Your task to perform on an android device: What's the weather today? Image 0: 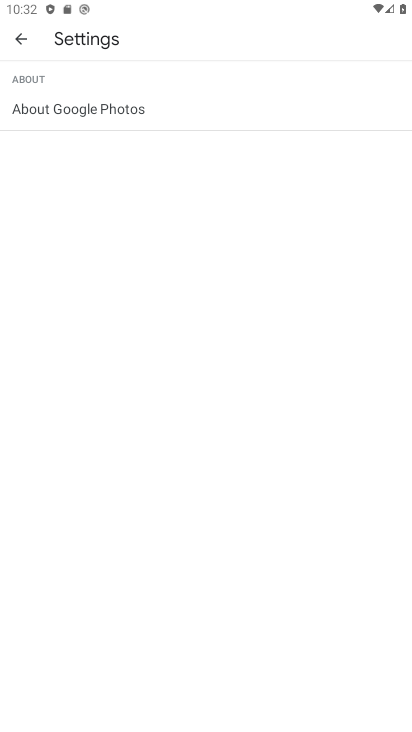
Step 0: press home button
Your task to perform on an android device: What's the weather today? Image 1: 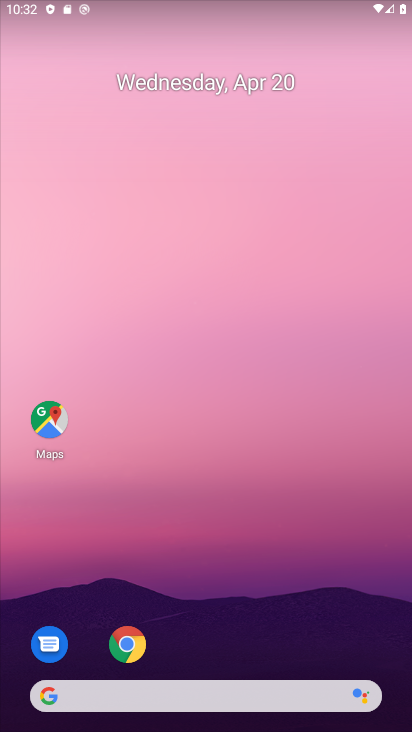
Step 1: drag from (360, 604) to (347, 144)
Your task to perform on an android device: What's the weather today? Image 2: 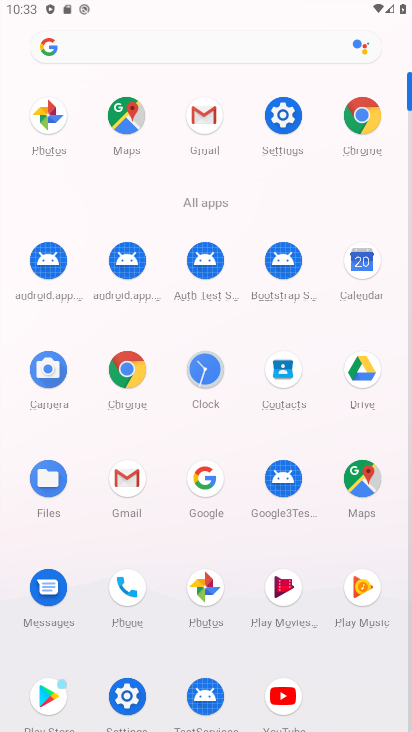
Step 2: click (133, 379)
Your task to perform on an android device: What's the weather today? Image 3: 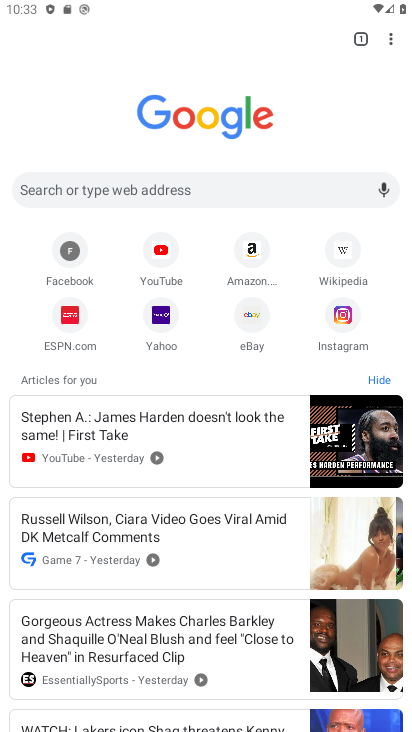
Step 3: click (201, 190)
Your task to perform on an android device: What's the weather today? Image 4: 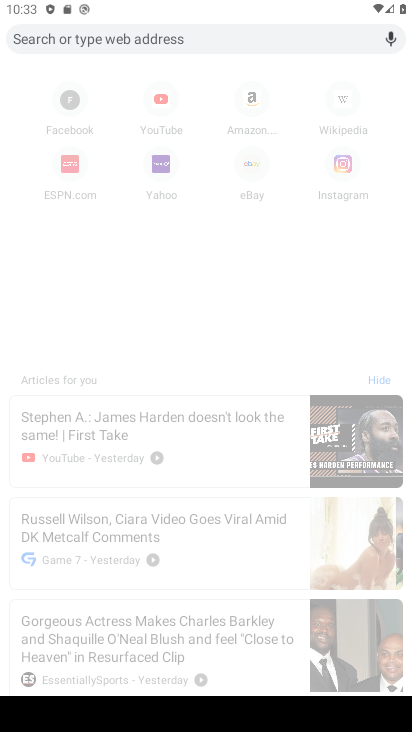
Step 4: type "what's the weather today"
Your task to perform on an android device: What's the weather today? Image 5: 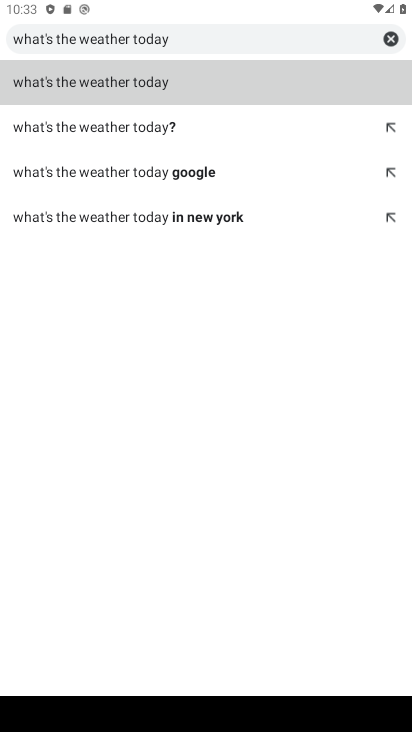
Step 5: click (71, 89)
Your task to perform on an android device: What's the weather today? Image 6: 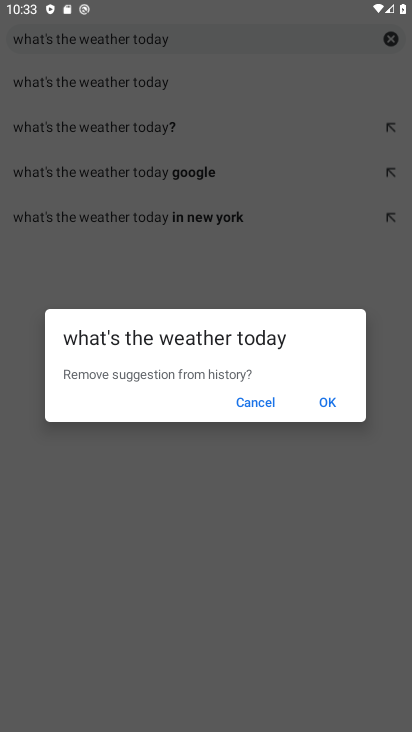
Step 6: click (326, 406)
Your task to perform on an android device: What's the weather today? Image 7: 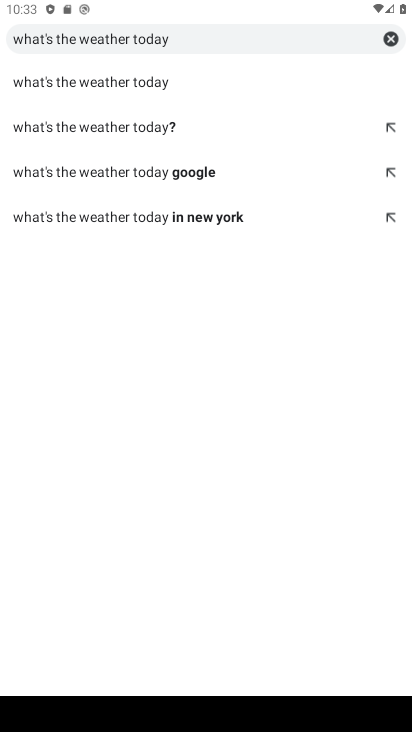
Step 7: click (168, 82)
Your task to perform on an android device: What's the weather today? Image 8: 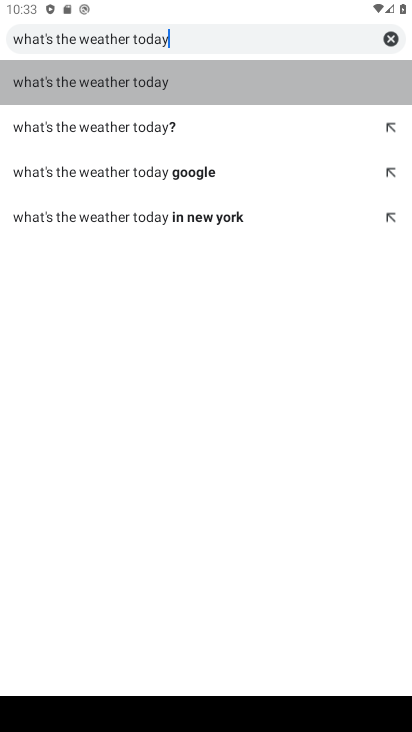
Step 8: click (168, 82)
Your task to perform on an android device: What's the weather today? Image 9: 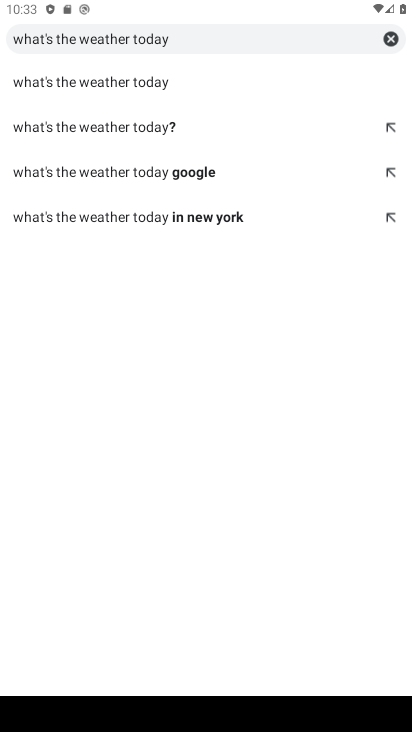
Step 9: click (116, 86)
Your task to perform on an android device: What's the weather today? Image 10: 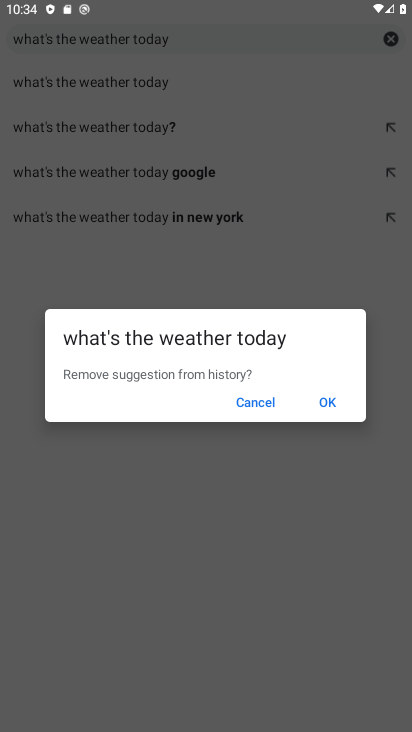
Step 10: click (330, 401)
Your task to perform on an android device: What's the weather today? Image 11: 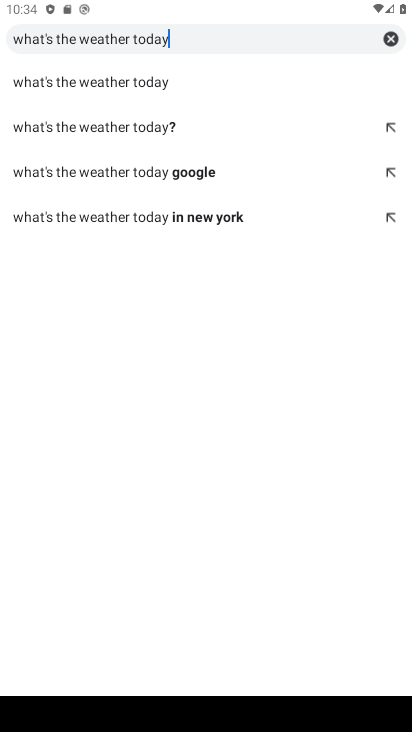
Step 11: click (116, 85)
Your task to perform on an android device: What's the weather today? Image 12: 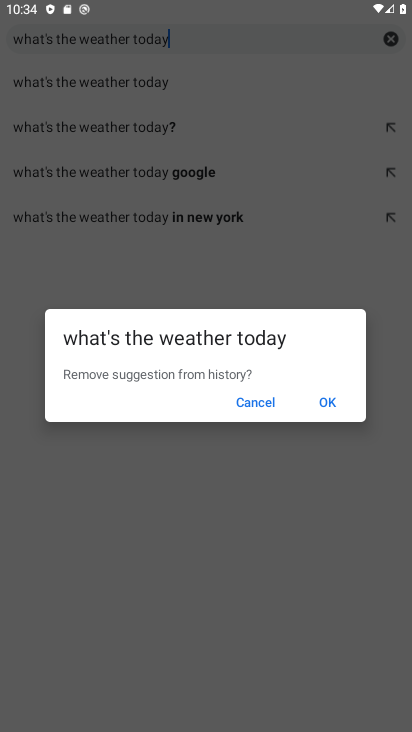
Step 12: click (245, 401)
Your task to perform on an android device: What's the weather today? Image 13: 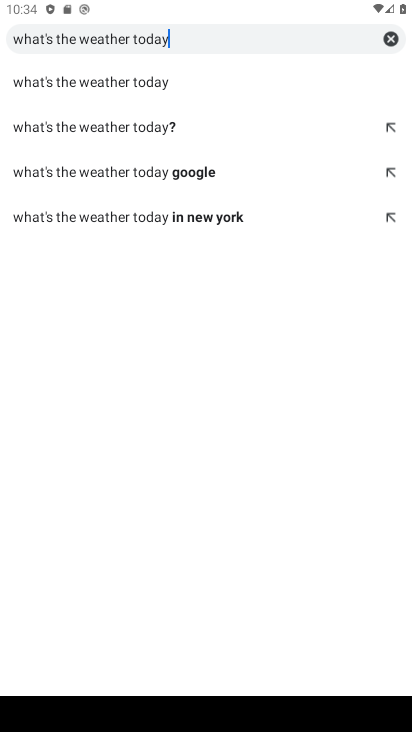
Step 13: click (113, 81)
Your task to perform on an android device: What's the weather today? Image 14: 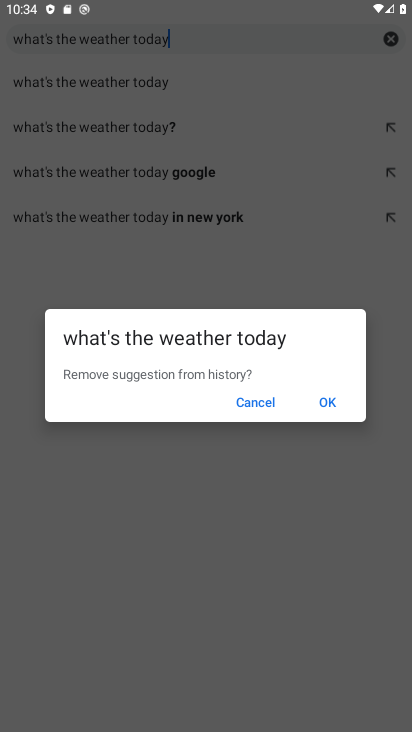
Step 14: click (330, 406)
Your task to perform on an android device: What's the weather today? Image 15: 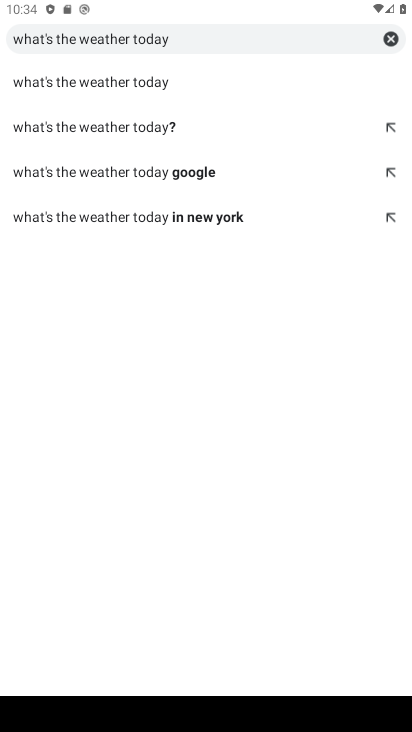
Step 15: click (128, 84)
Your task to perform on an android device: What's the weather today? Image 16: 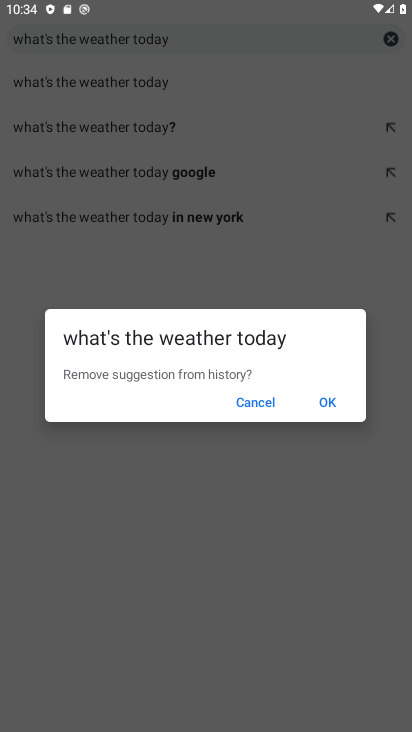
Step 16: click (323, 398)
Your task to perform on an android device: What's the weather today? Image 17: 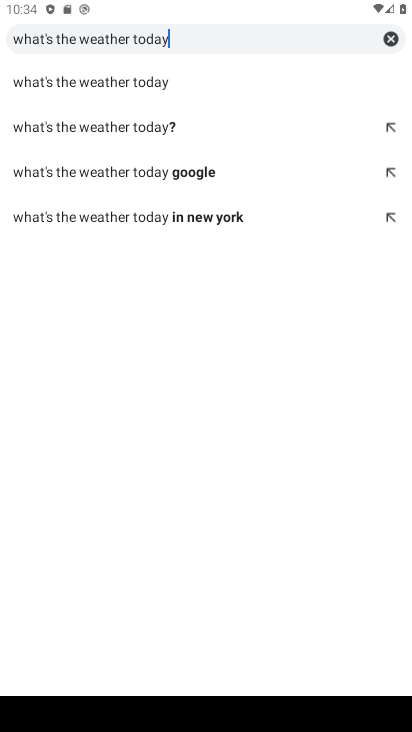
Step 17: click (111, 85)
Your task to perform on an android device: What's the weather today? Image 18: 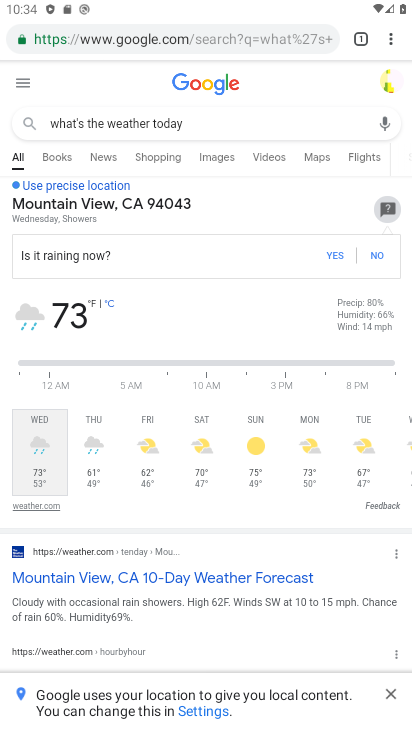
Step 18: task complete